Your task to perform on an android device: Do I have any events tomorrow? Image 0: 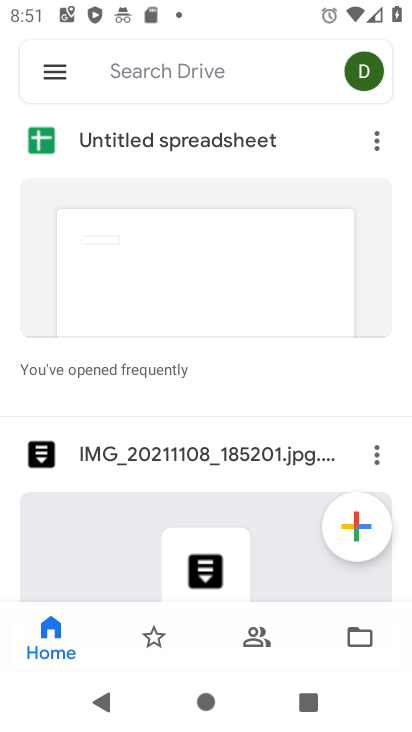
Step 0: press home button
Your task to perform on an android device: Do I have any events tomorrow? Image 1: 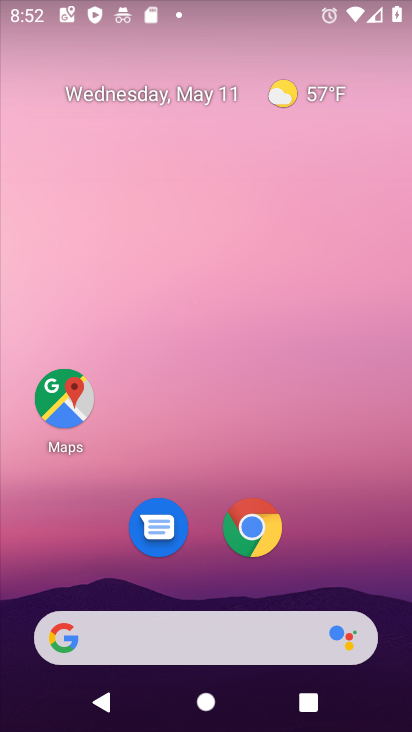
Step 1: drag from (355, 222) to (329, 5)
Your task to perform on an android device: Do I have any events tomorrow? Image 2: 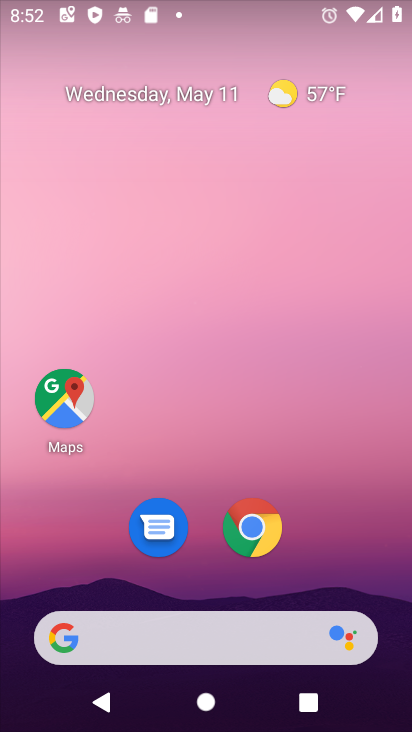
Step 2: drag from (349, 431) to (237, 19)
Your task to perform on an android device: Do I have any events tomorrow? Image 3: 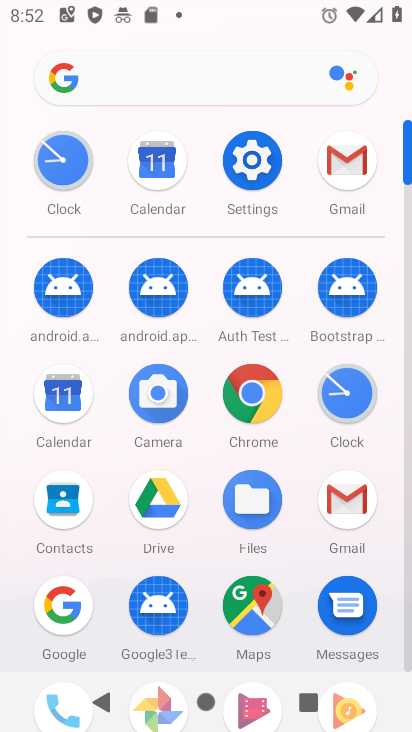
Step 3: click (156, 179)
Your task to perform on an android device: Do I have any events tomorrow? Image 4: 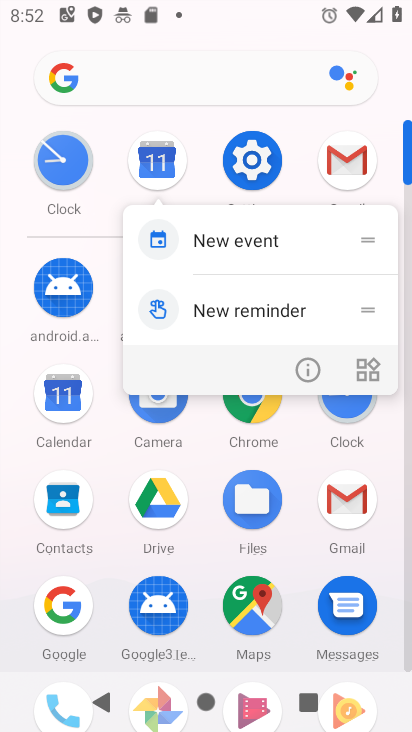
Step 4: click (152, 160)
Your task to perform on an android device: Do I have any events tomorrow? Image 5: 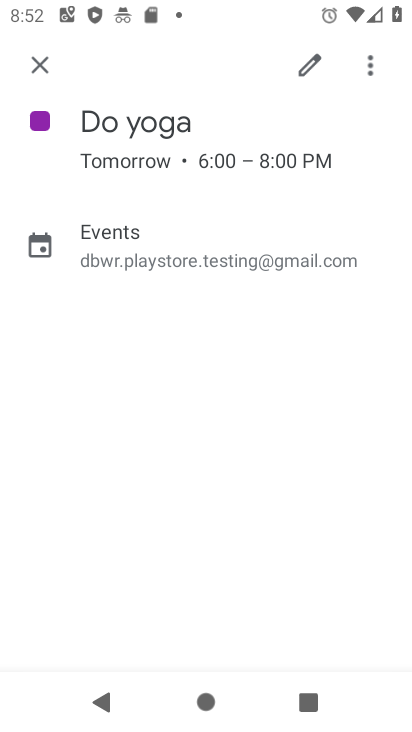
Step 5: click (47, 71)
Your task to perform on an android device: Do I have any events tomorrow? Image 6: 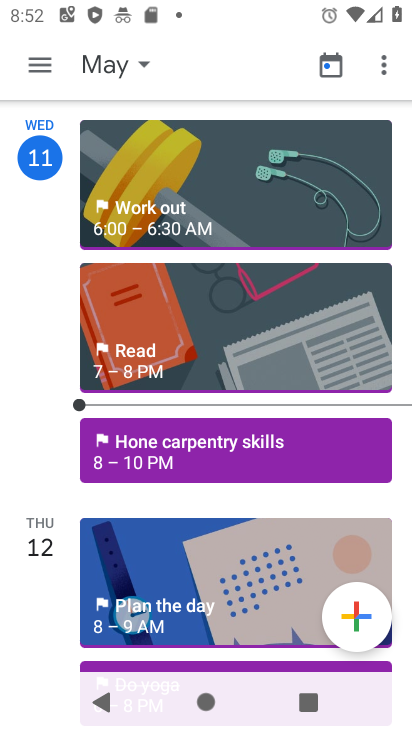
Step 6: drag from (223, 419) to (188, 133)
Your task to perform on an android device: Do I have any events tomorrow? Image 7: 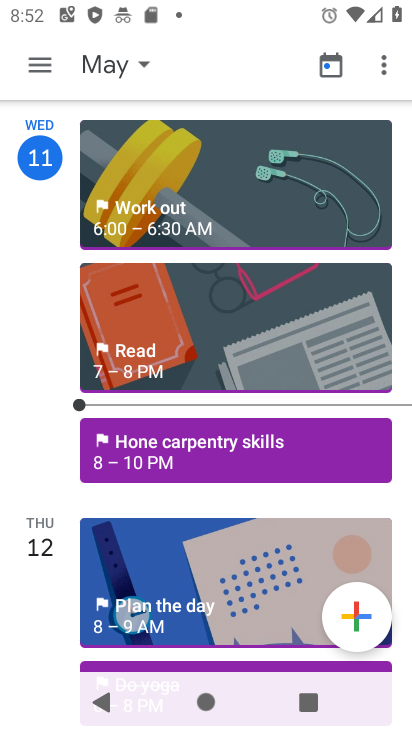
Step 7: drag from (262, 560) to (220, 199)
Your task to perform on an android device: Do I have any events tomorrow? Image 8: 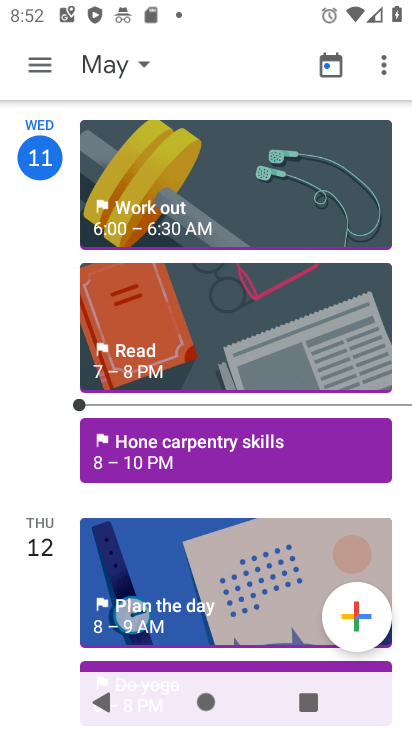
Step 8: drag from (237, 510) to (217, 213)
Your task to perform on an android device: Do I have any events tomorrow? Image 9: 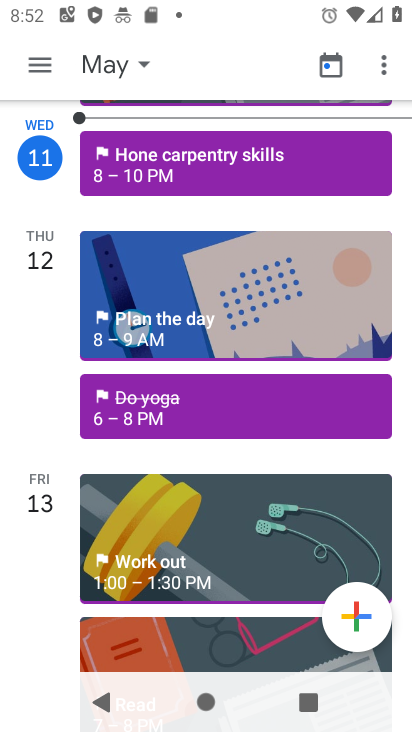
Step 9: click (198, 411)
Your task to perform on an android device: Do I have any events tomorrow? Image 10: 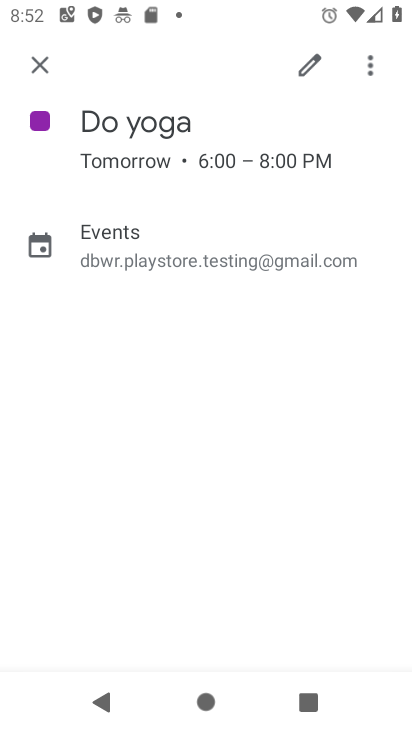
Step 10: task complete